Your task to perform on an android device: Search for hotels in Atlanta Image 0: 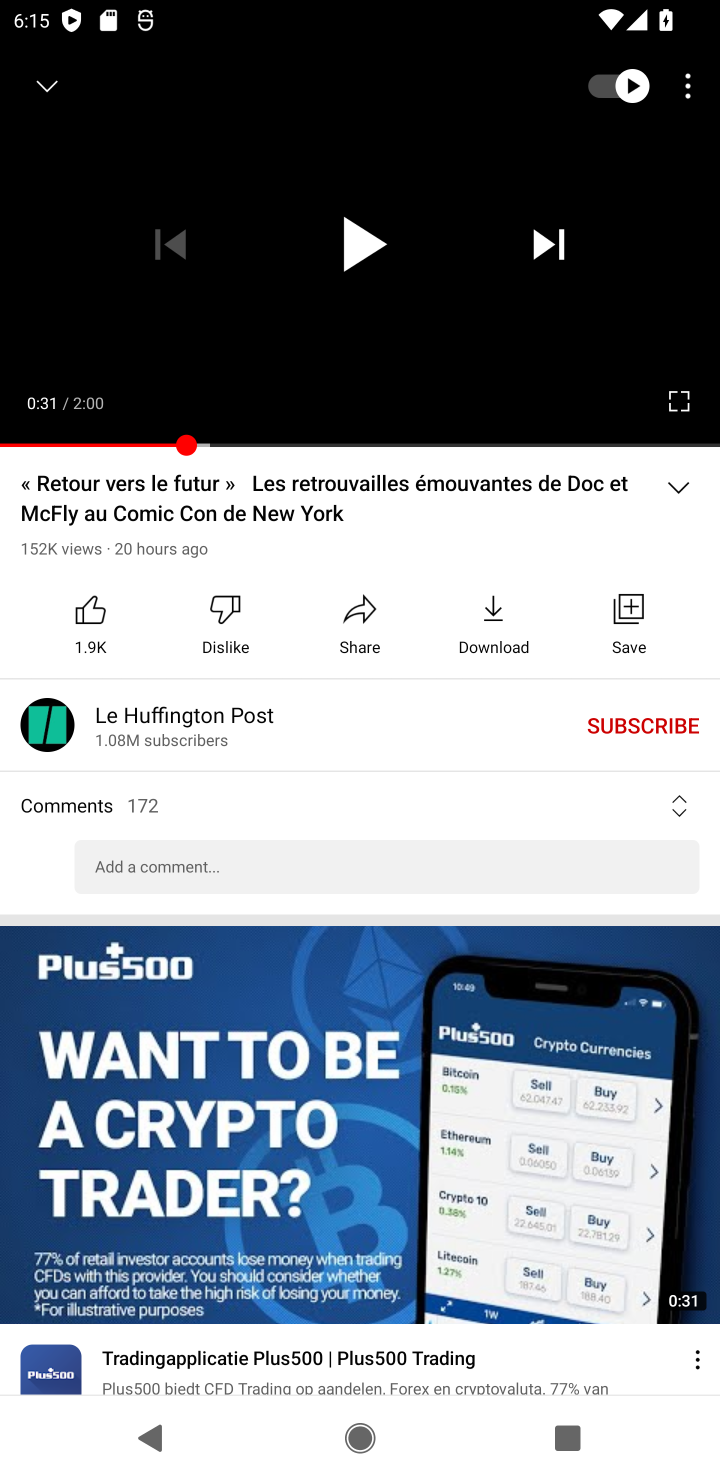
Step 0: press home button
Your task to perform on an android device: Search for hotels in Atlanta Image 1: 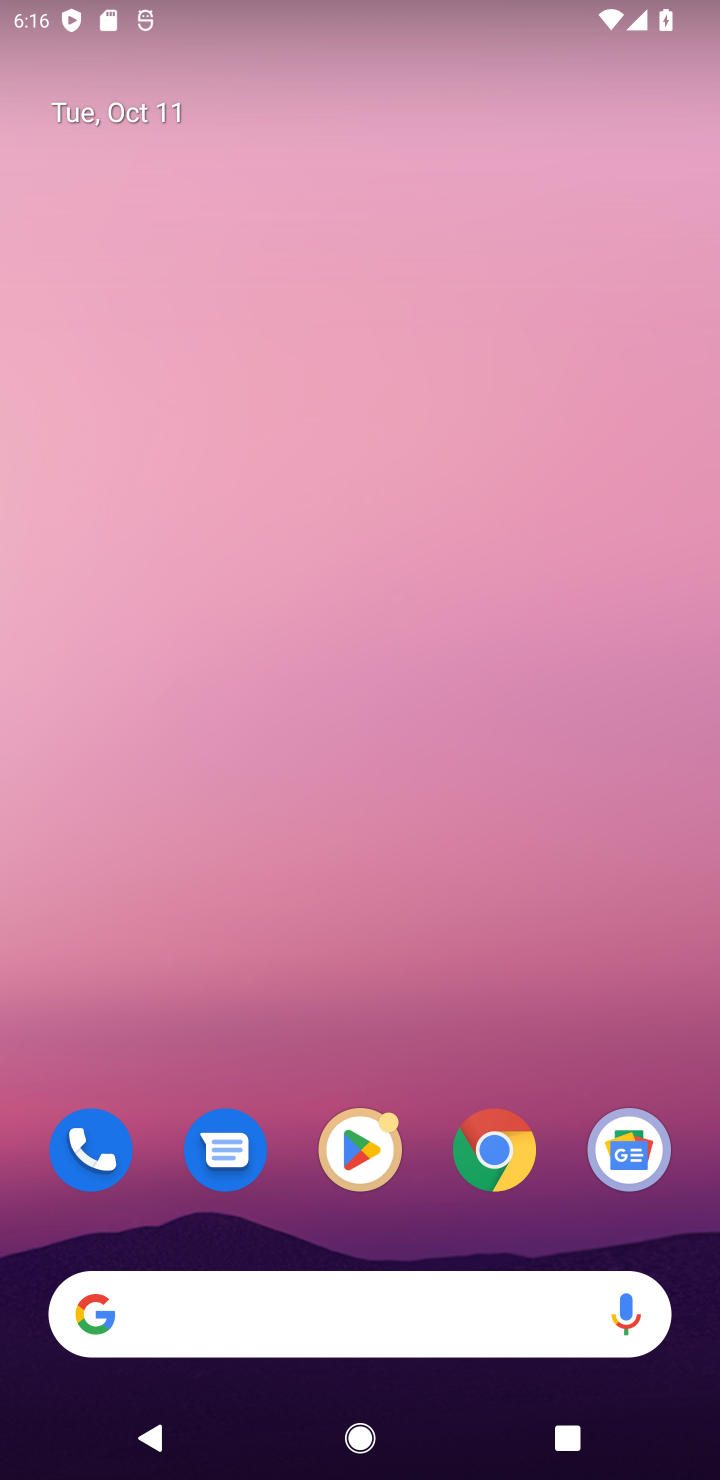
Step 1: click (482, 1154)
Your task to perform on an android device: Search for hotels in Atlanta Image 2: 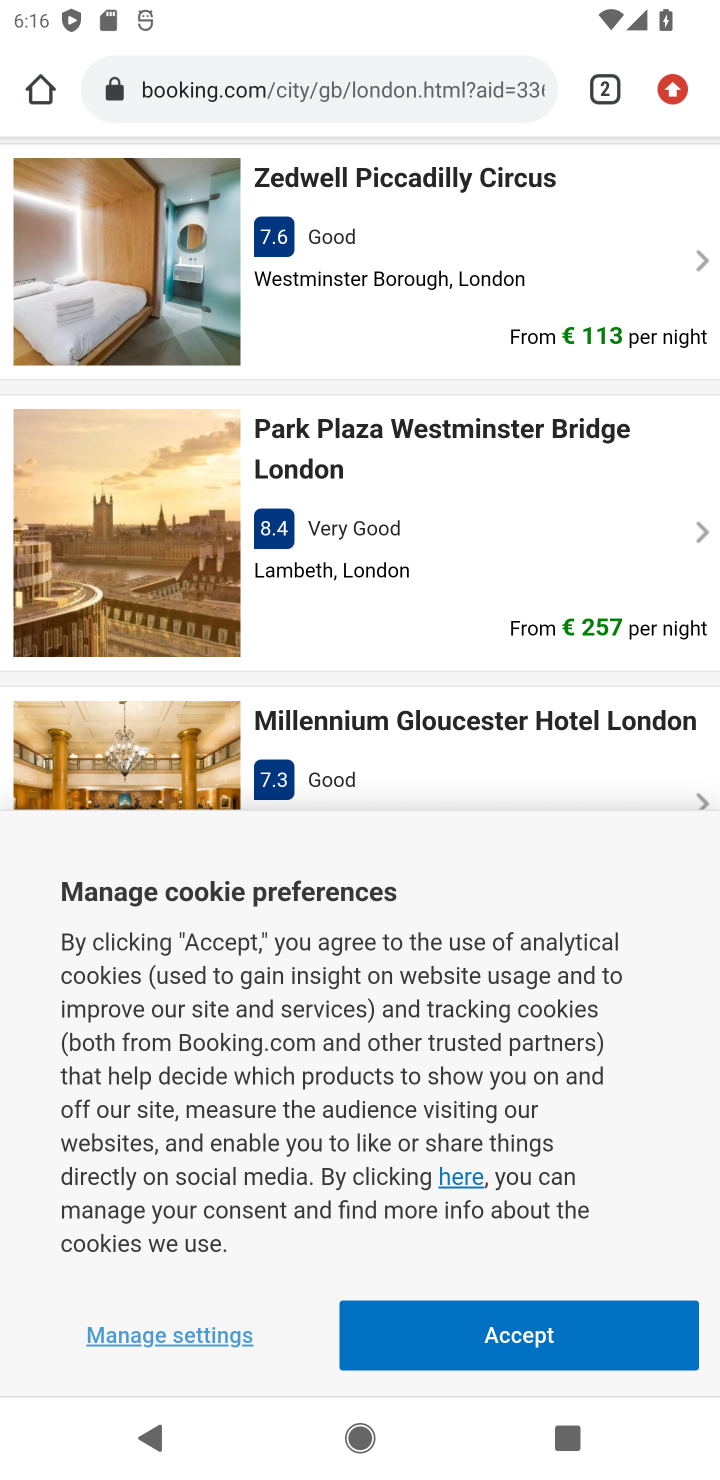
Step 2: click (315, 90)
Your task to perform on an android device: Search for hotels in Atlanta Image 3: 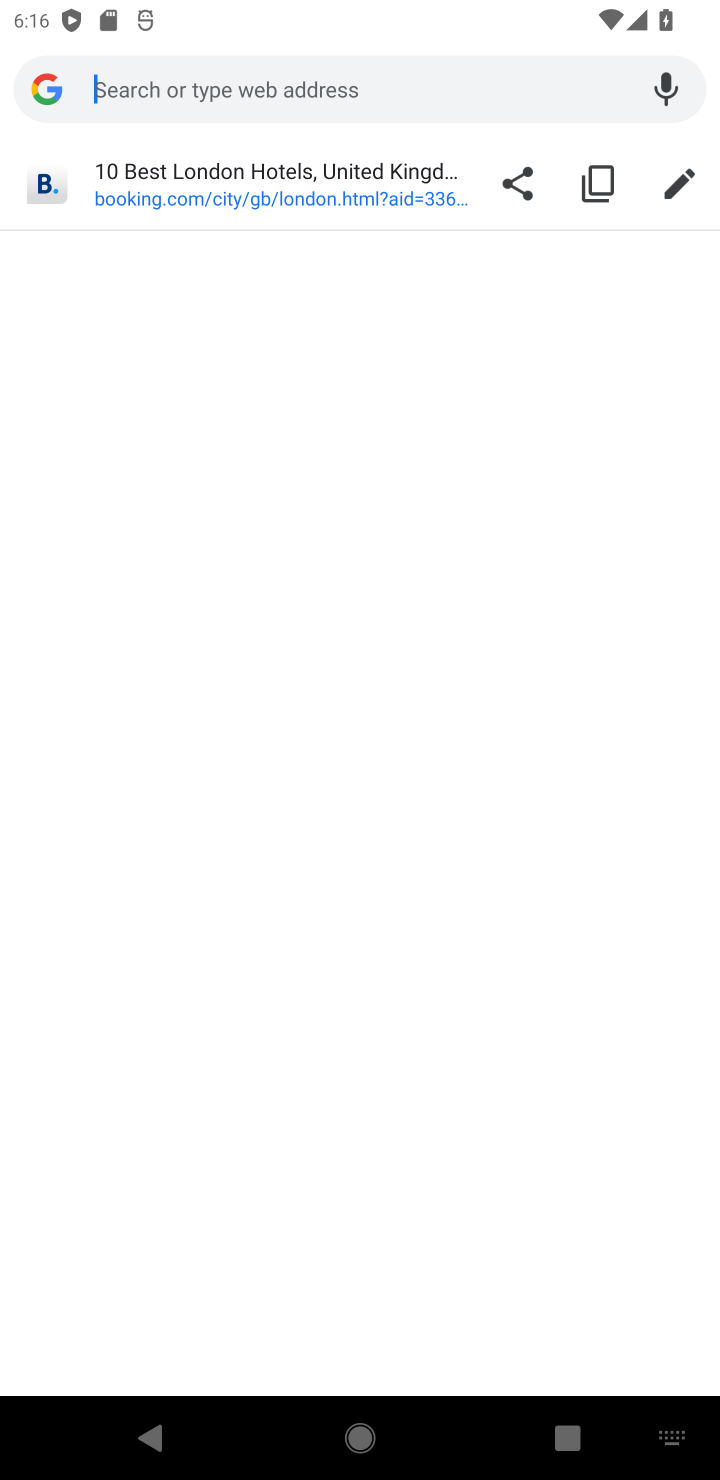
Step 3: type "hotel in atlanta "
Your task to perform on an android device: Search for hotels in Atlanta Image 4: 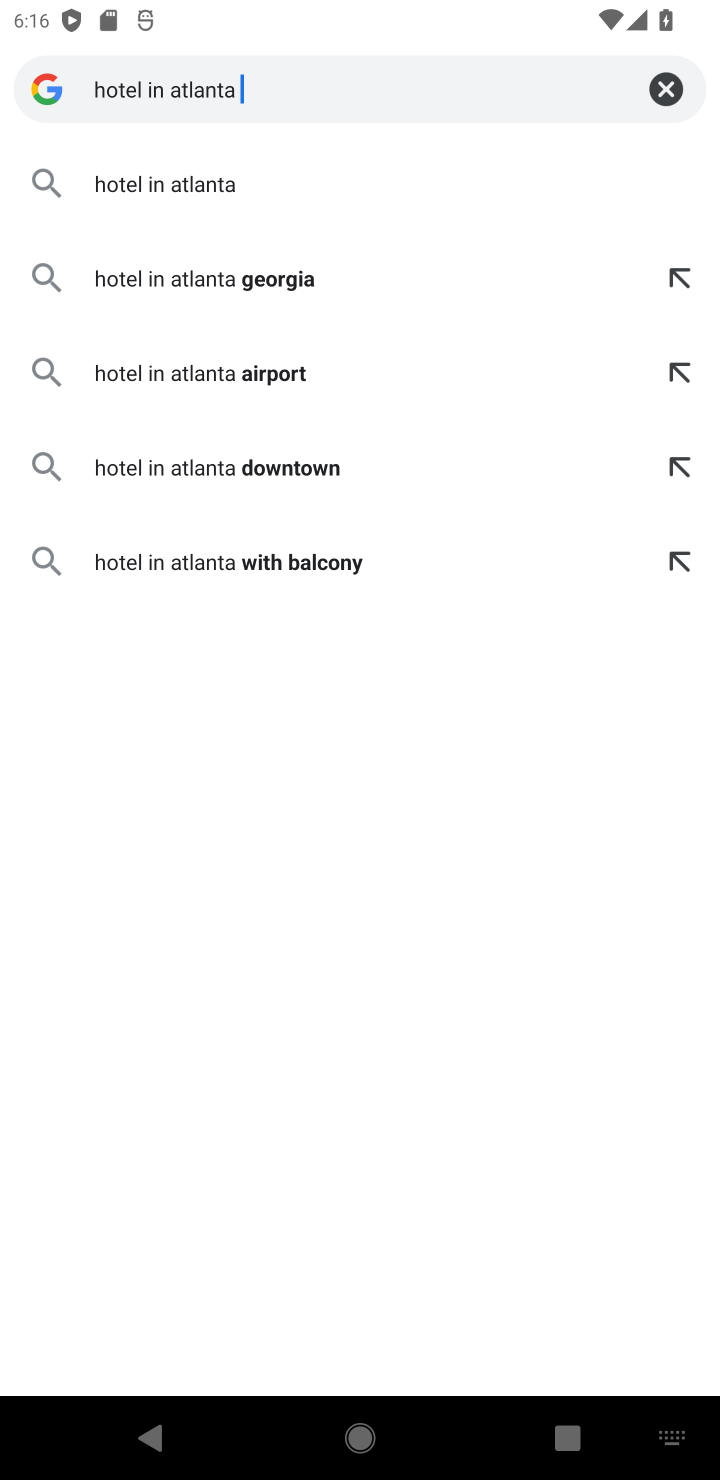
Step 4: click (201, 194)
Your task to perform on an android device: Search for hotels in Atlanta Image 5: 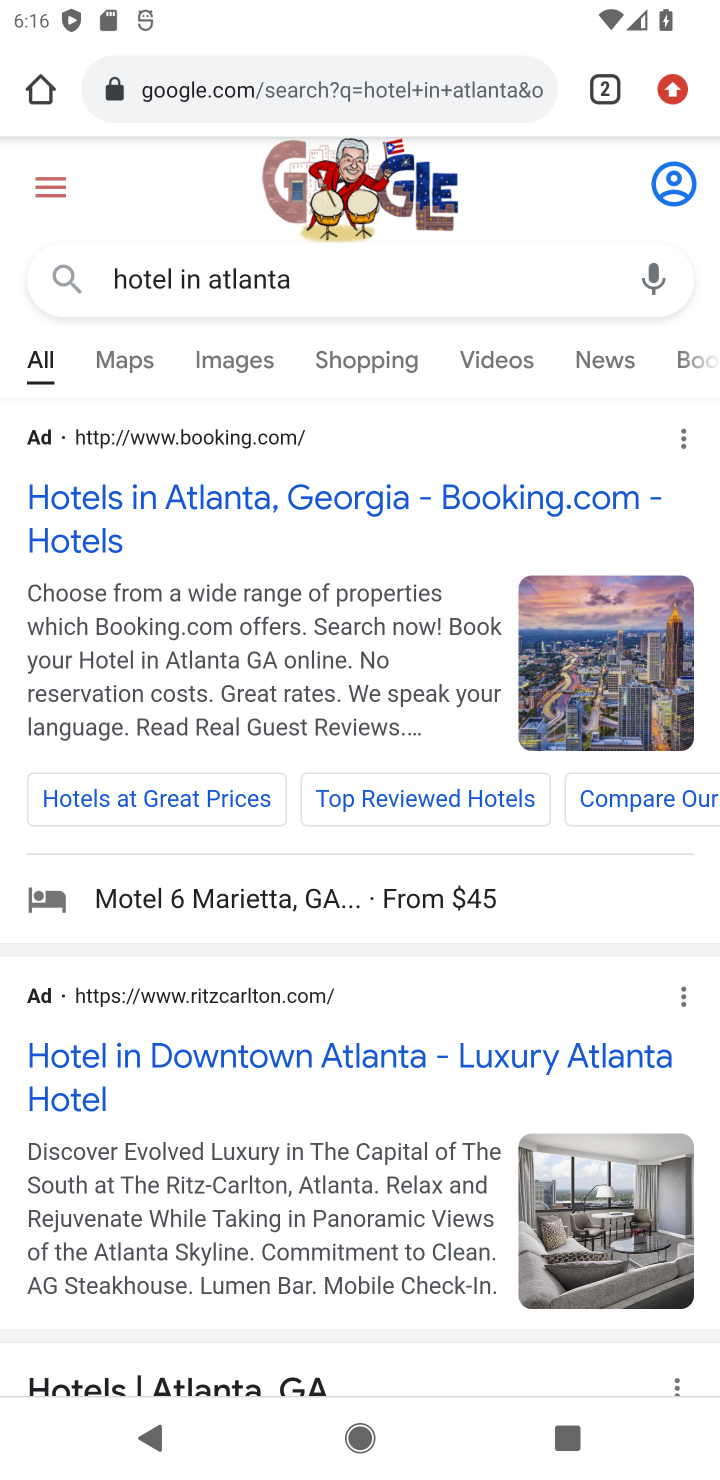
Step 5: click (161, 516)
Your task to perform on an android device: Search for hotels in Atlanta Image 6: 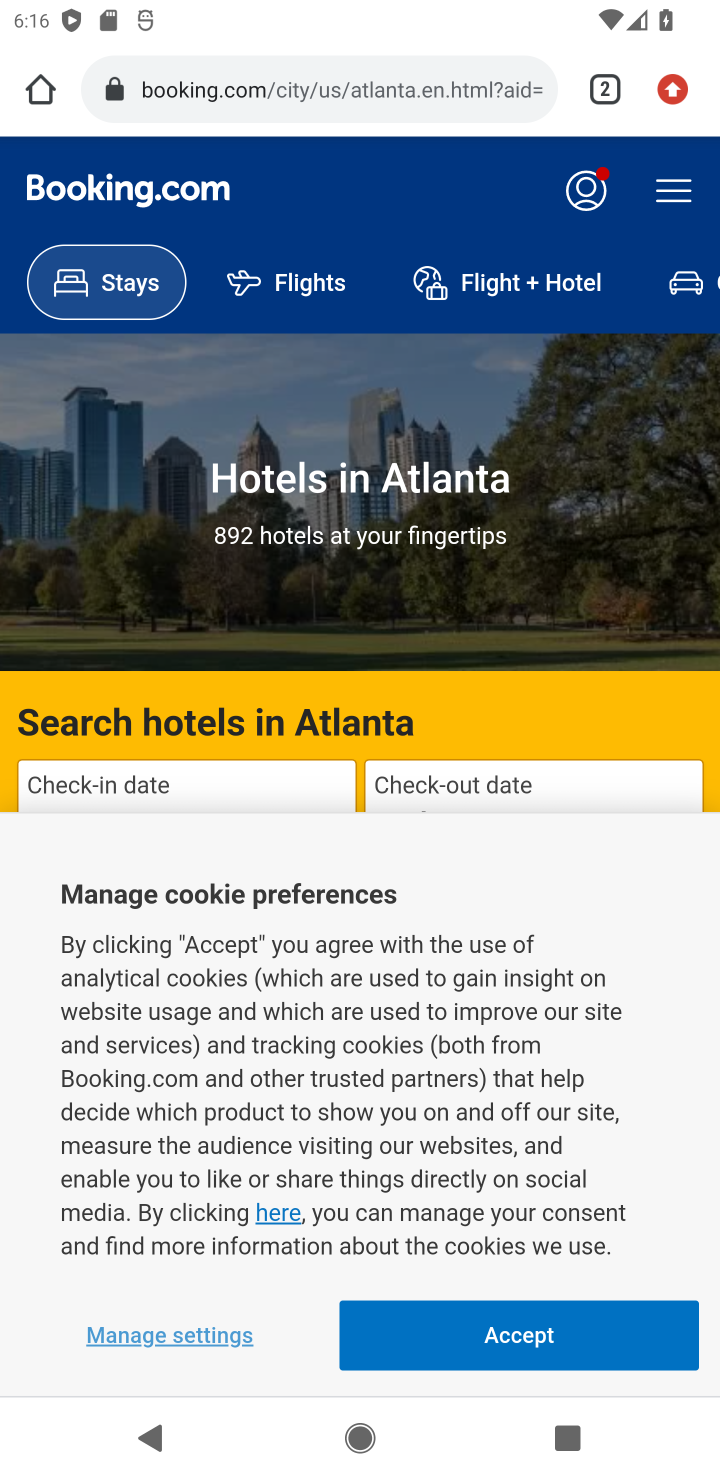
Step 6: task complete